Your task to perform on an android device: What's on my calendar tomorrow? Image 0: 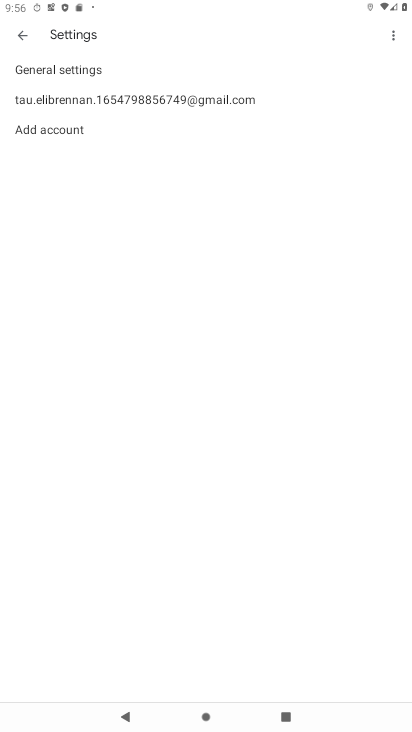
Step 0: press home button
Your task to perform on an android device: What's on my calendar tomorrow? Image 1: 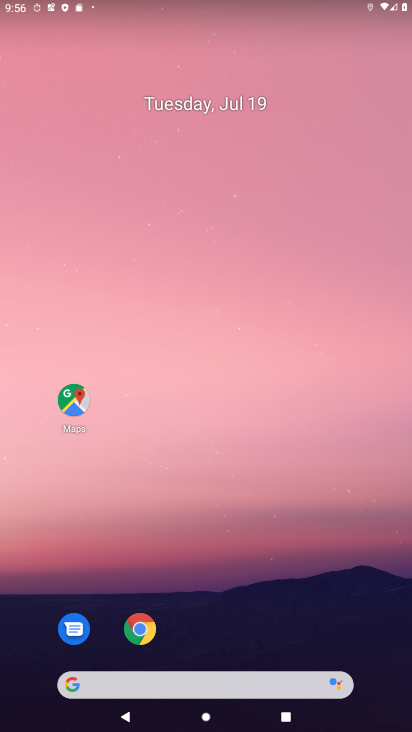
Step 1: drag from (201, 585) to (239, 26)
Your task to perform on an android device: What's on my calendar tomorrow? Image 2: 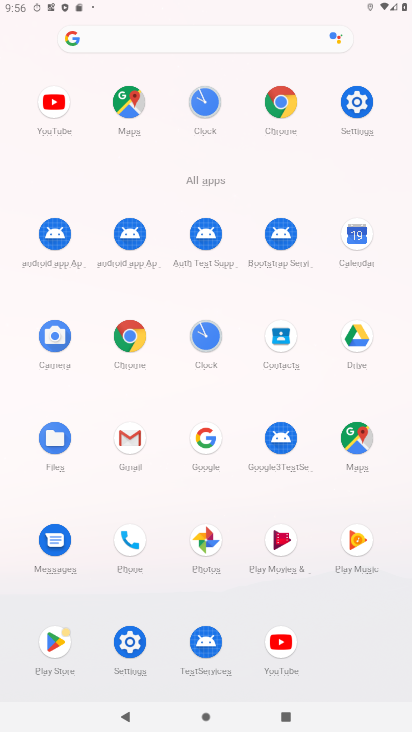
Step 2: click (363, 244)
Your task to perform on an android device: What's on my calendar tomorrow? Image 3: 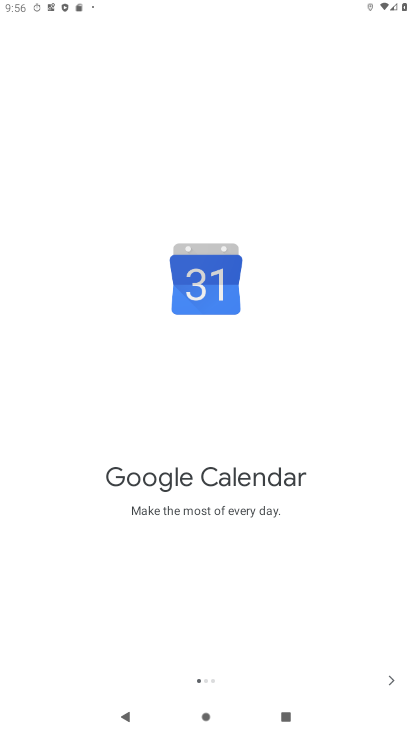
Step 3: click (388, 673)
Your task to perform on an android device: What's on my calendar tomorrow? Image 4: 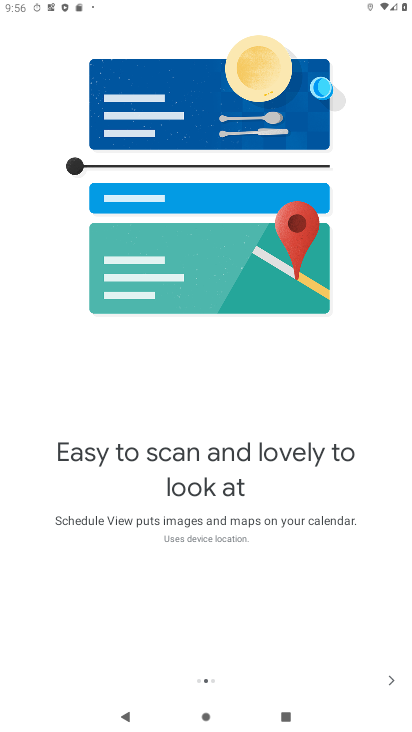
Step 4: click (382, 678)
Your task to perform on an android device: What's on my calendar tomorrow? Image 5: 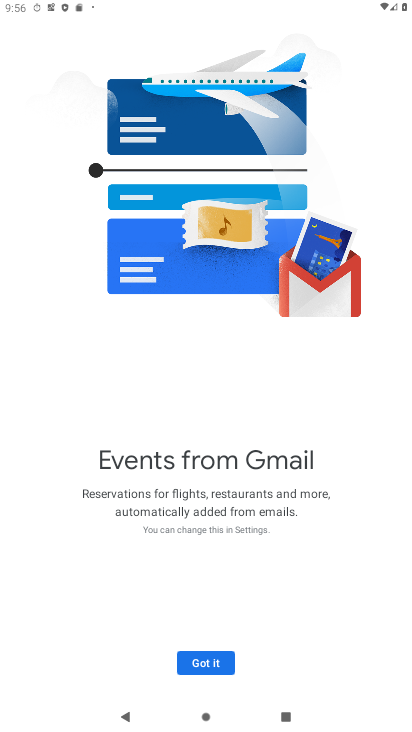
Step 5: click (206, 658)
Your task to perform on an android device: What's on my calendar tomorrow? Image 6: 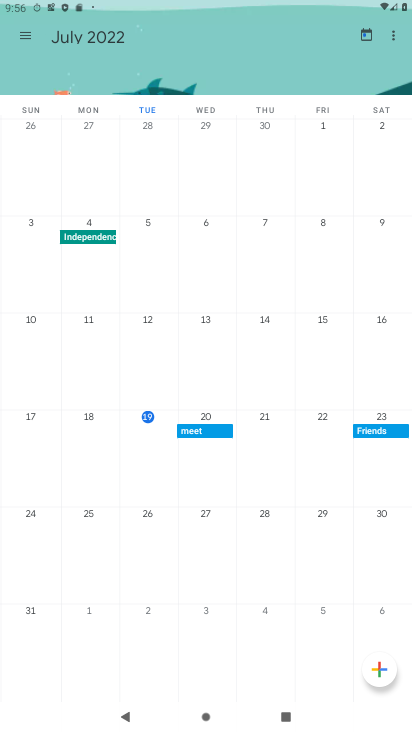
Step 6: click (24, 34)
Your task to perform on an android device: What's on my calendar tomorrow? Image 7: 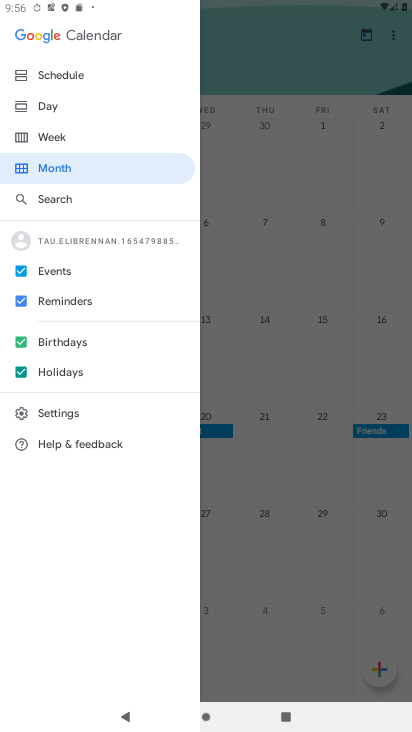
Step 7: click (58, 108)
Your task to perform on an android device: What's on my calendar tomorrow? Image 8: 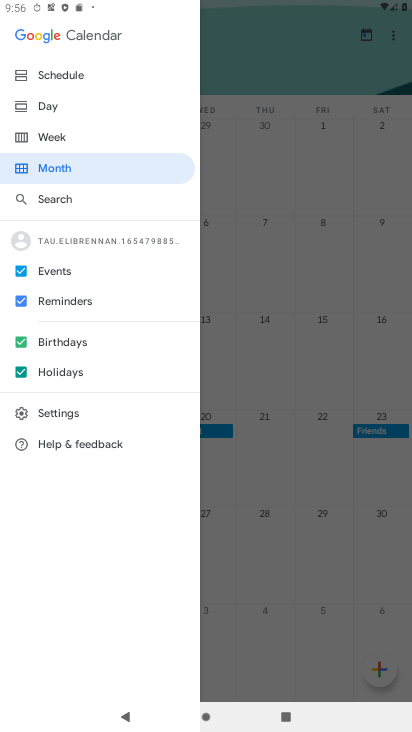
Step 8: click (45, 110)
Your task to perform on an android device: What's on my calendar tomorrow? Image 9: 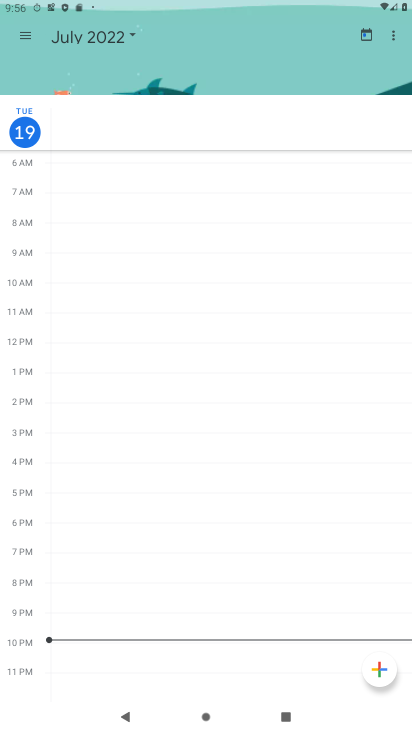
Step 9: click (107, 36)
Your task to perform on an android device: What's on my calendar tomorrow? Image 10: 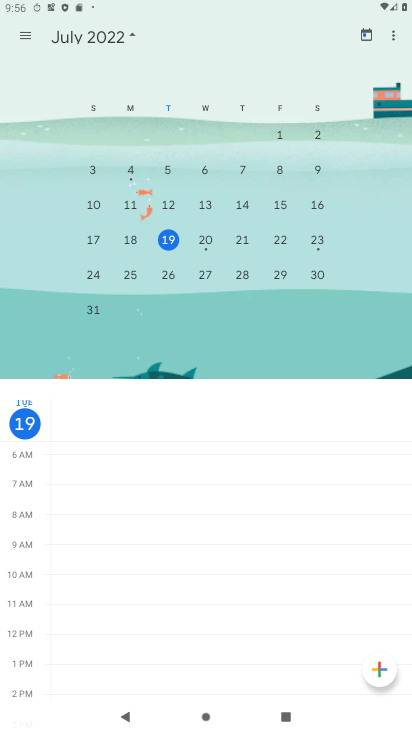
Step 10: click (206, 240)
Your task to perform on an android device: What's on my calendar tomorrow? Image 11: 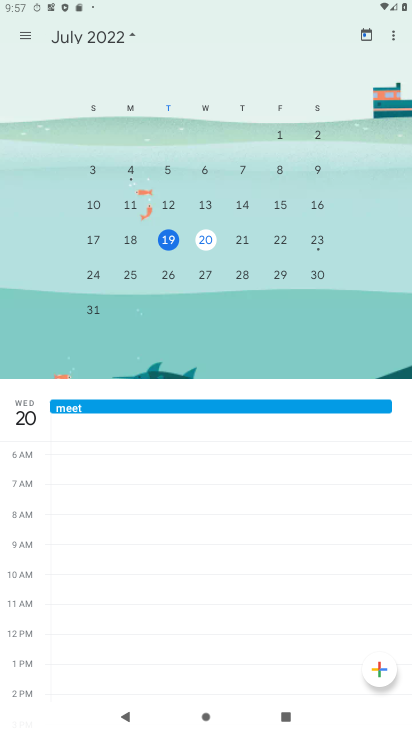
Step 11: task complete